Your task to perform on an android device: allow notifications from all sites in the chrome app Image 0: 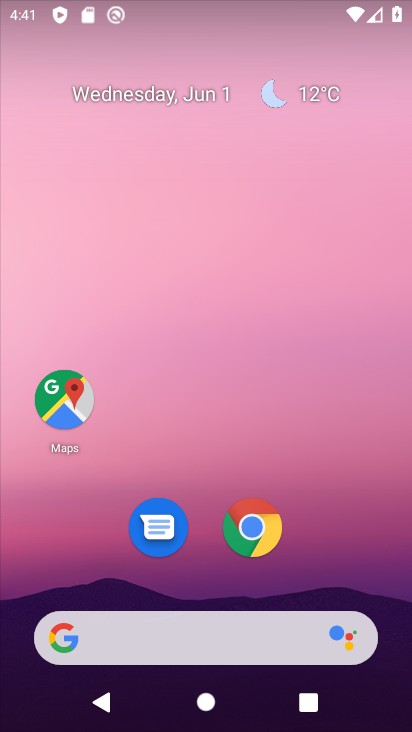
Step 0: click (245, 530)
Your task to perform on an android device: allow notifications from all sites in the chrome app Image 1: 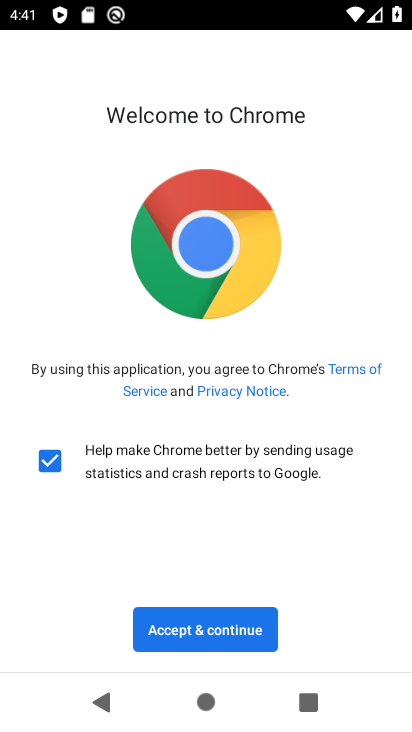
Step 1: click (181, 626)
Your task to perform on an android device: allow notifications from all sites in the chrome app Image 2: 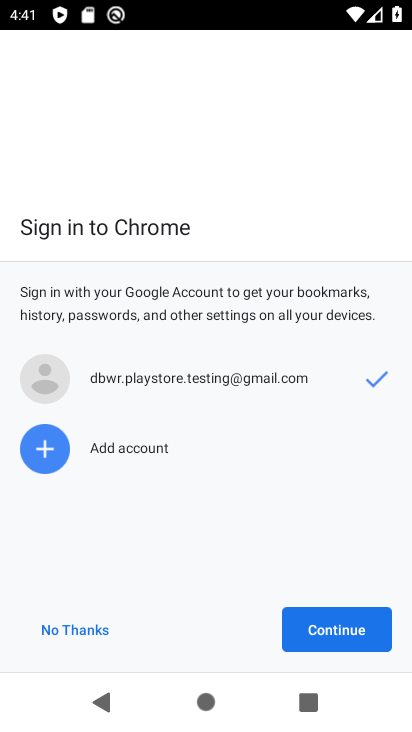
Step 2: click (371, 643)
Your task to perform on an android device: allow notifications from all sites in the chrome app Image 3: 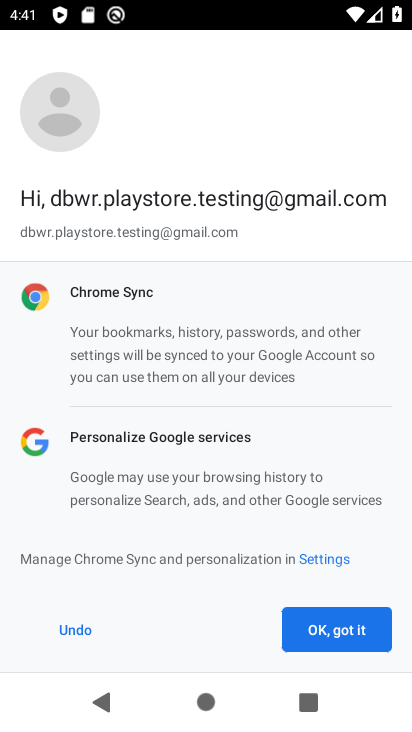
Step 3: click (371, 643)
Your task to perform on an android device: allow notifications from all sites in the chrome app Image 4: 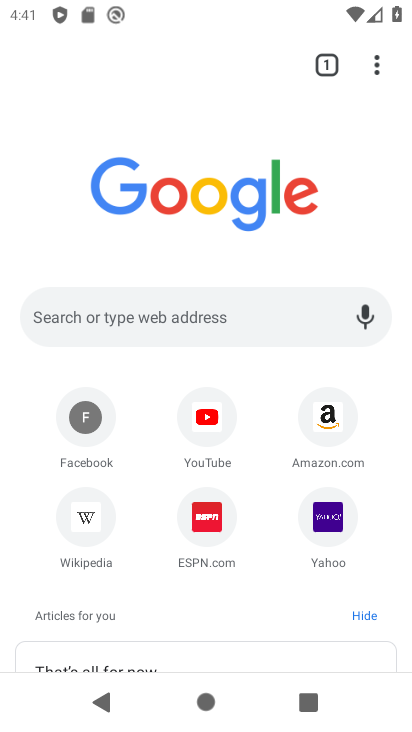
Step 4: click (376, 70)
Your task to perform on an android device: allow notifications from all sites in the chrome app Image 5: 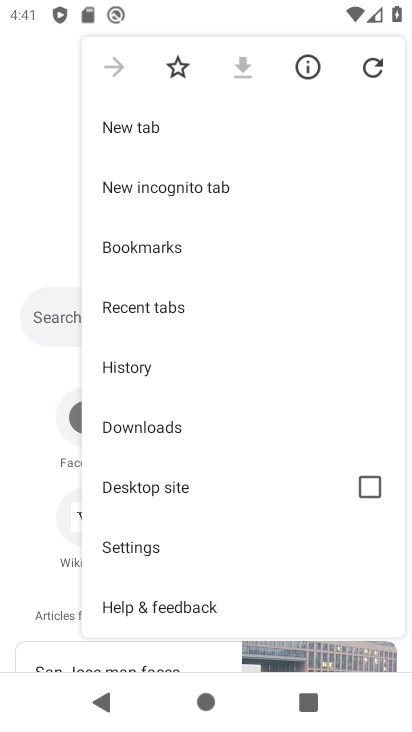
Step 5: click (116, 544)
Your task to perform on an android device: allow notifications from all sites in the chrome app Image 6: 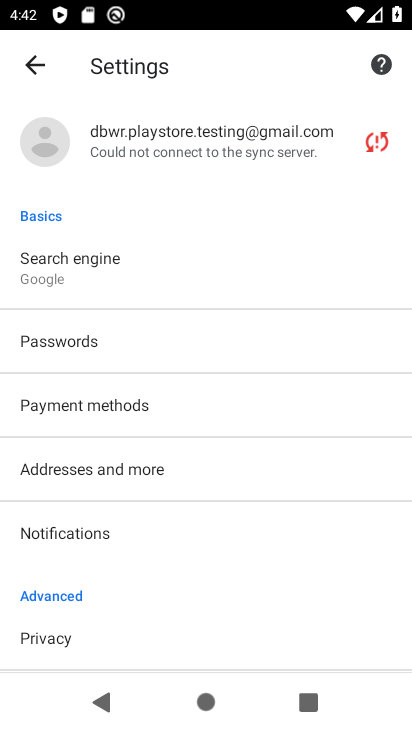
Step 6: click (109, 543)
Your task to perform on an android device: allow notifications from all sites in the chrome app Image 7: 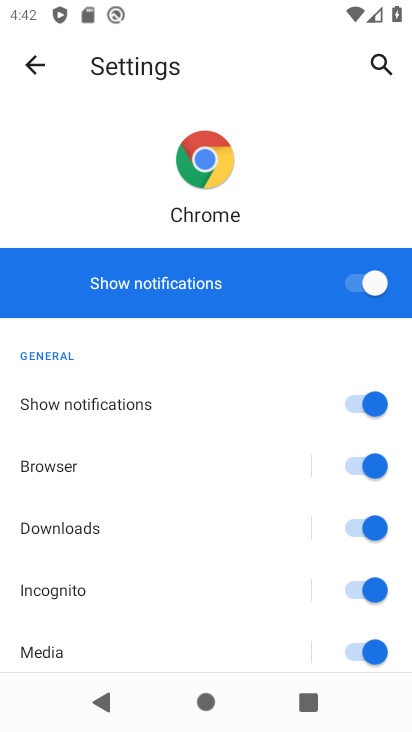
Step 7: task complete